Your task to perform on an android device: check the backup settings in the google photos Image 0: 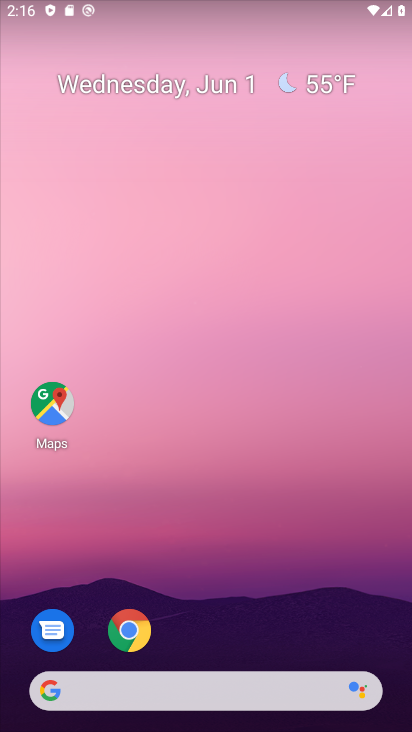
Step 0: drag from (157, 650) to (224, 266)
Your task to perform on an android device: check the backup settings in the google photos Image 1: 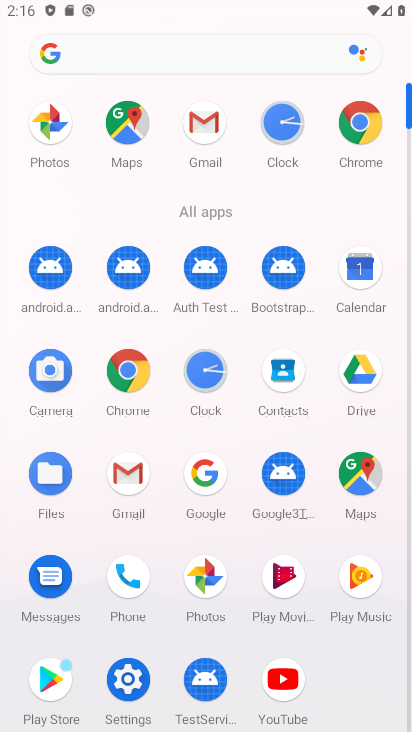
Step 1: click (195, 577)
Your task to perform on an android device: check the backup settings in the google photos Image 2: 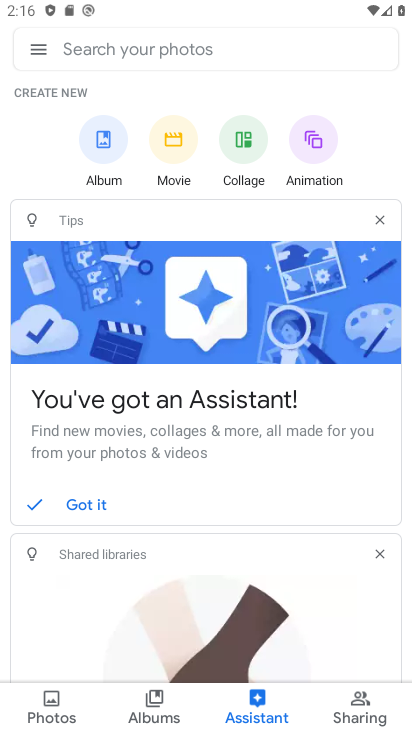
Step 2: click (39, 53)
Your task to perform on an android device: check the backup settings in the google photos Image 3: 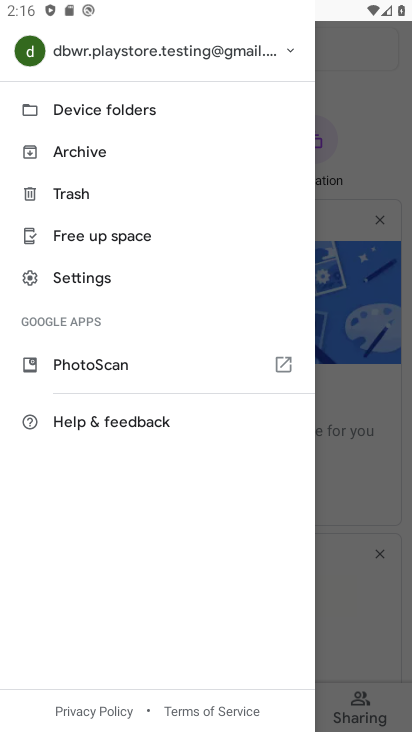
Step 3: click (140, 287)
Your task to perform on an android device: check the backup settings in the google photos Image 4: 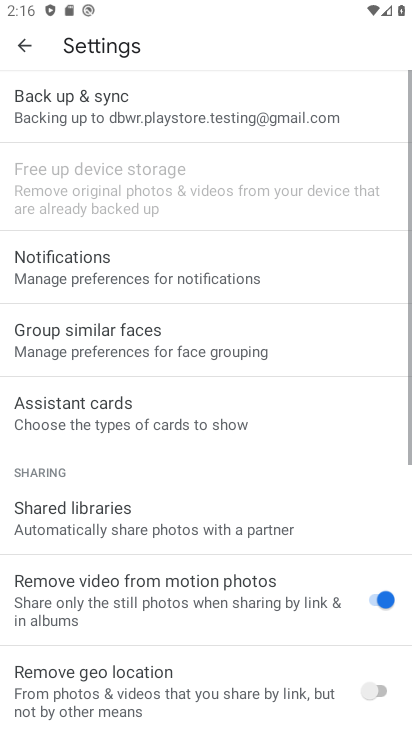
Step 4: click (188, 124)
Your task to perform on an android device: check the backup settings in the google photos Image 5: 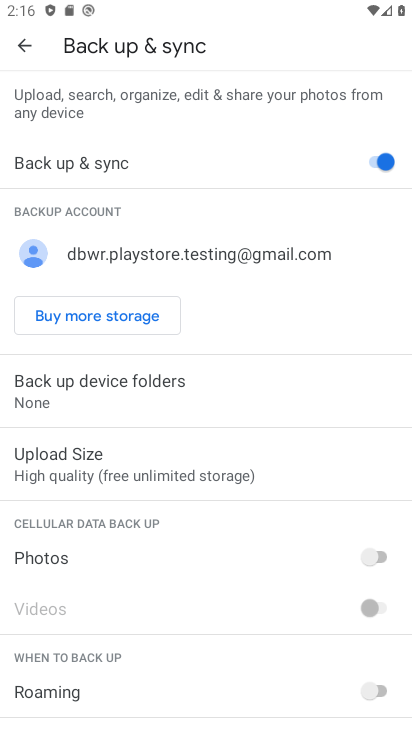
Step 5: task complete